Your task to perform on an android device: all mails in gmail Image 0: 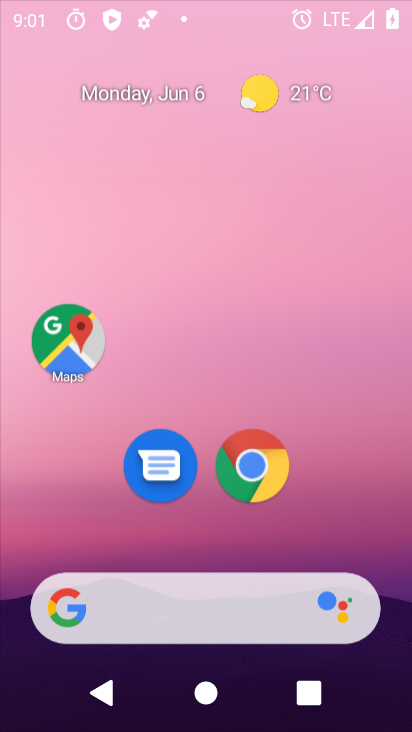
Step 0: click (256, 190)
Your task to perform on an android device: all mails in gmail Image 1: 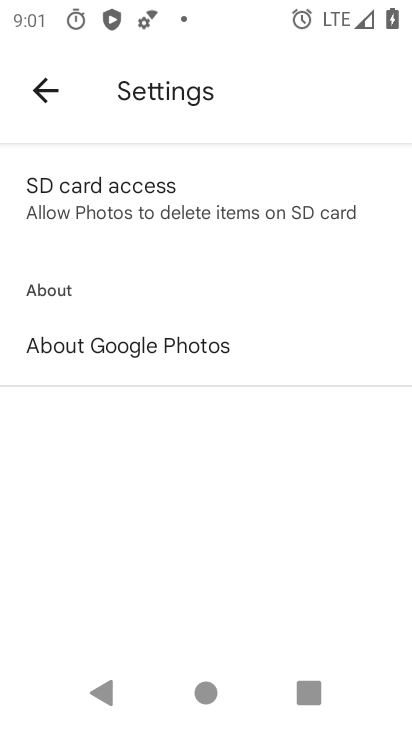
Step 1: drag from (221, 522) to (283, 117)
Your task to perform on an android device: all mails in gmail Image 2: 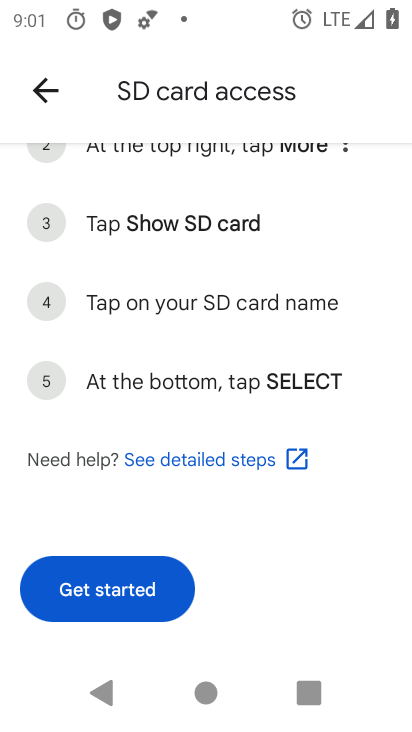
Step 2: press home button
Your task to perform on an android device: all mails in gmail Image 3: 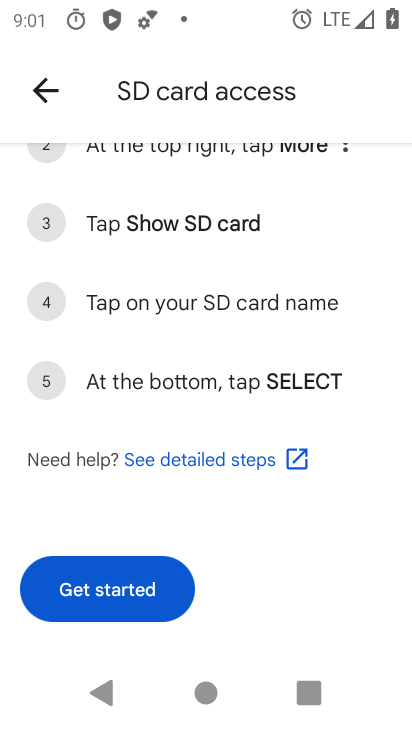
Step 3: click (238, 207)
Your task to perform on an android device: all mails in gmail Image 4: 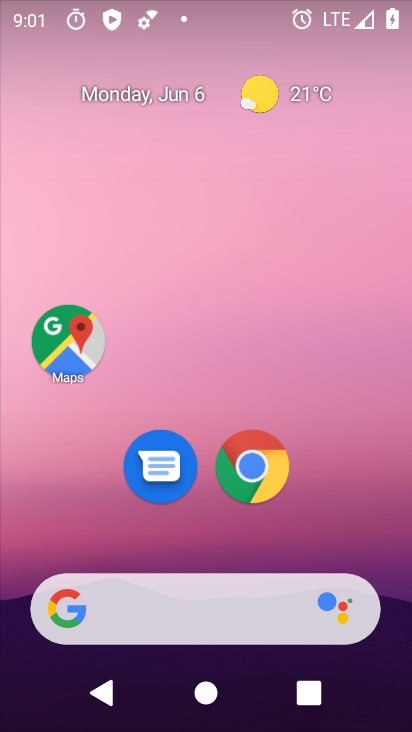
Step 4: drag from (219, 568) to (299, 128)
Your task to perform on an android device: all mails in gmail Image 5: 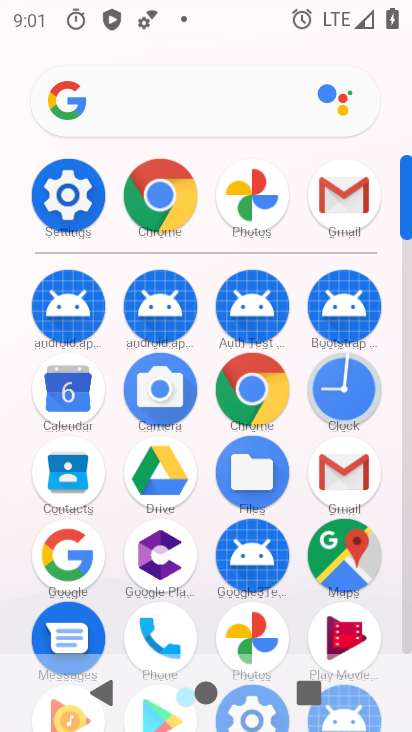
Step 5: drag from (213, 607) to (228, 256)
Your task to perform on an android device: all mails in gmail Image 6: 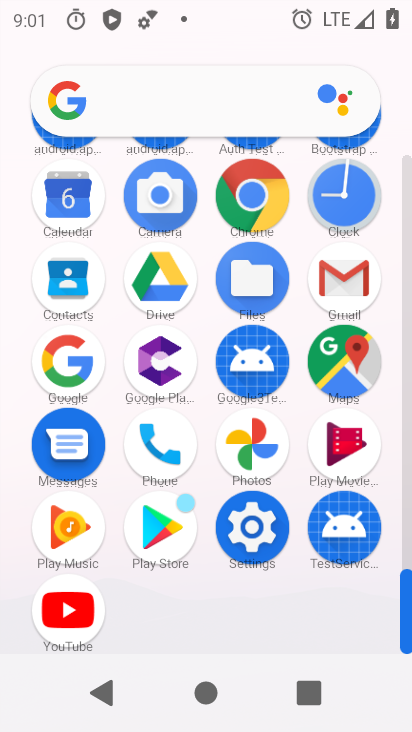
Step 6: click (339, 294)
Your task to perform on an android device: all mails in gmail Image 7: 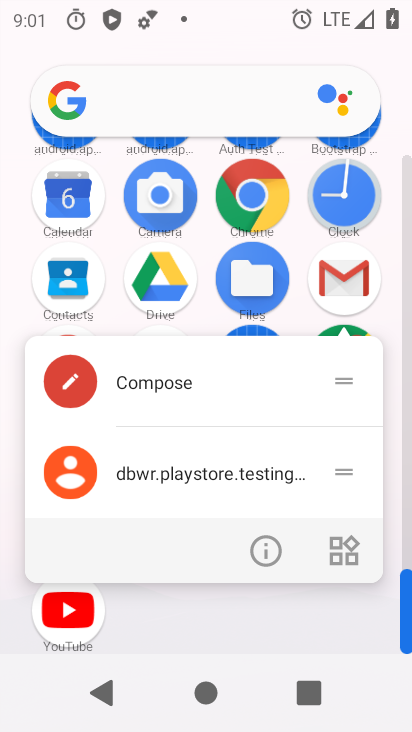
Step 7: click (273, 427)
Your task to perform on an android device: all mails in gmail Image 8: 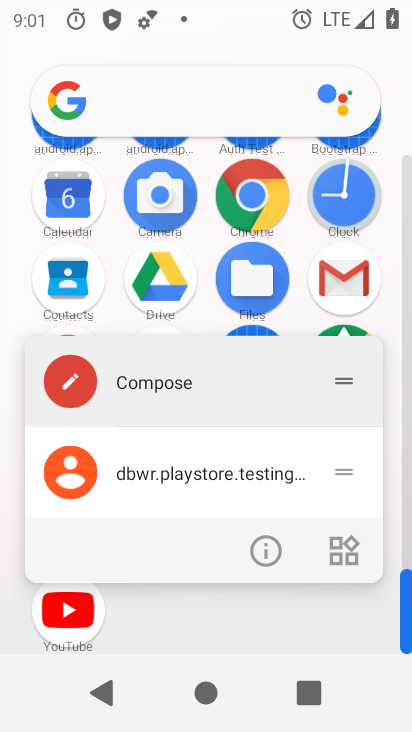
Step 8: click (222, 454)
Your task to perform on an android device: all mails in gmail Image 9: 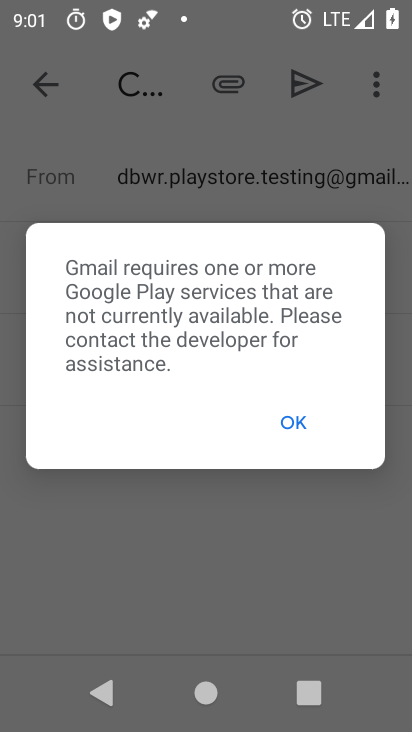
Step 9: press back button
Your task to perform on an android device: all mails in gmail Image 10: 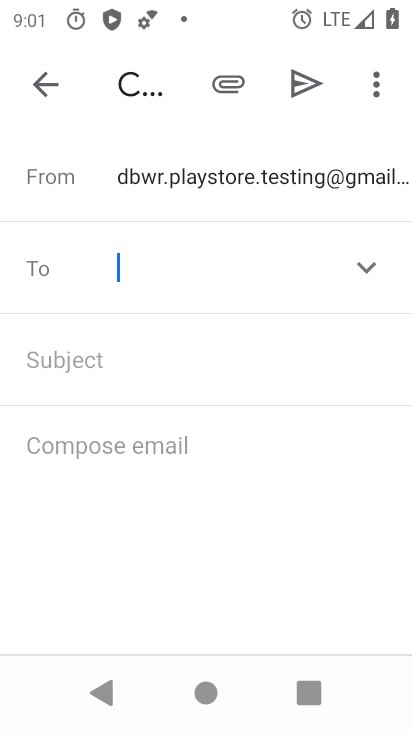
Step 10: press back button
Your task to perform on an android device: all mails in gmail Image 11: 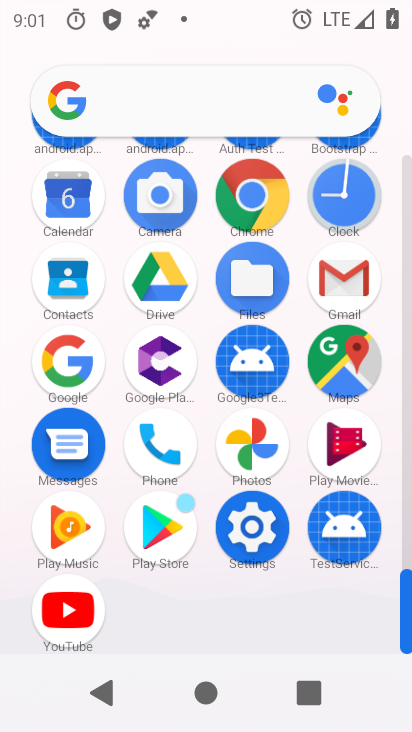
Step 11: click (344, 264)
Your task to perform on an android device: all mails in gmail Image 12: 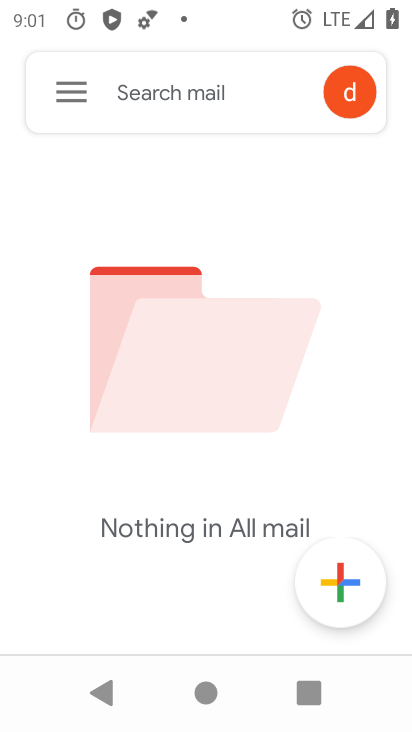
Step 12: click (90, 90)
Your task to perform on an android device: all mails in gmail Image 13: 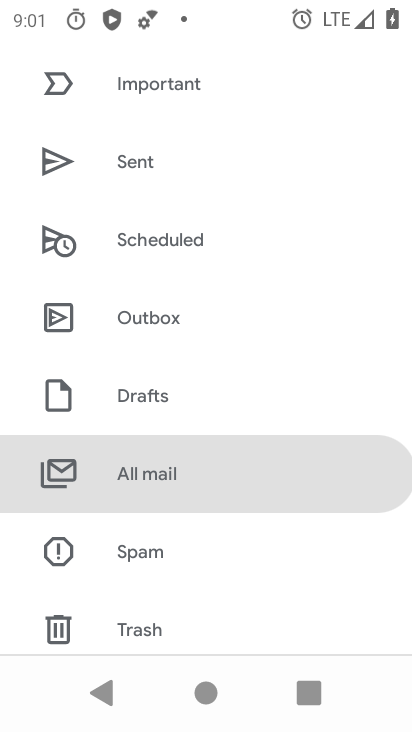
Step 13: drag from (210, 510) to (382, 13)
Your task to perform on an android device: all mails in gmail Image 14: 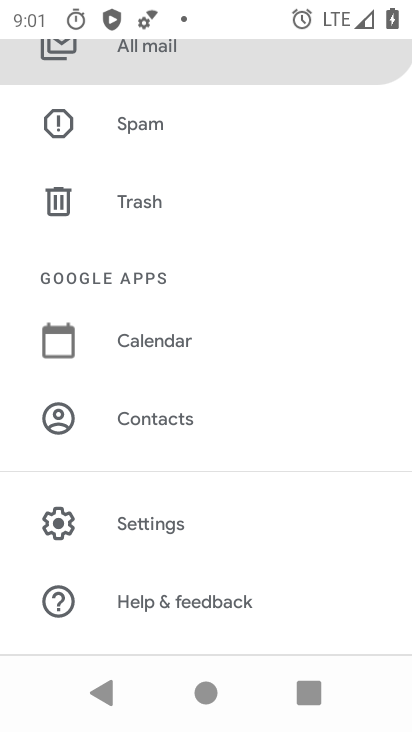
Step 14: click (112, 46)
Your task to perform on an android device: all mails in gmail Image 15: 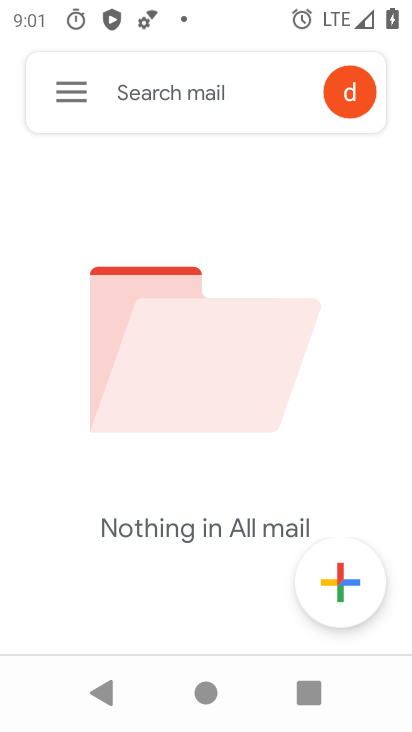
Step 15: task complete